Your task to perform on an android device: Go to network settings Image 0: 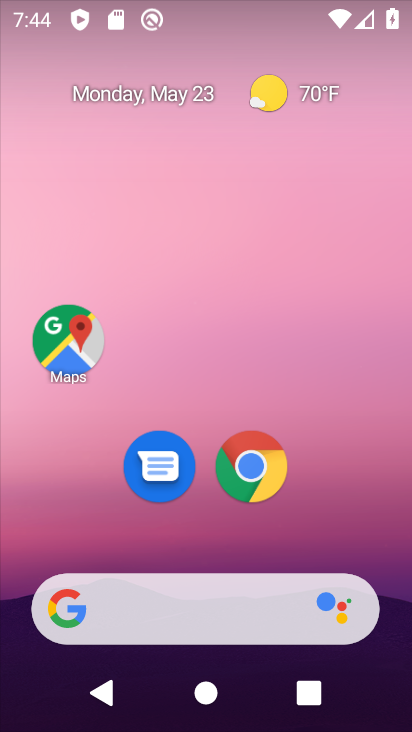
Step 0: drag from (250, 653) to (264, 118)
Your task to perform on an android device: Go to network settings Image 1: 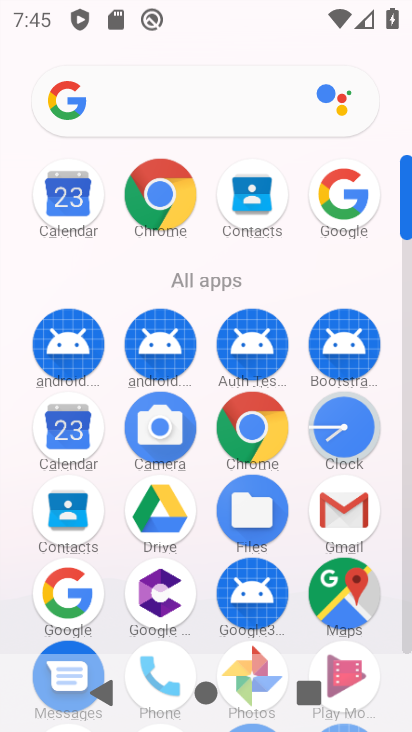
Step 1: drag from (267, 498) to (341, 305)
Your task to perform on an android device: Go to network settings Image 2: 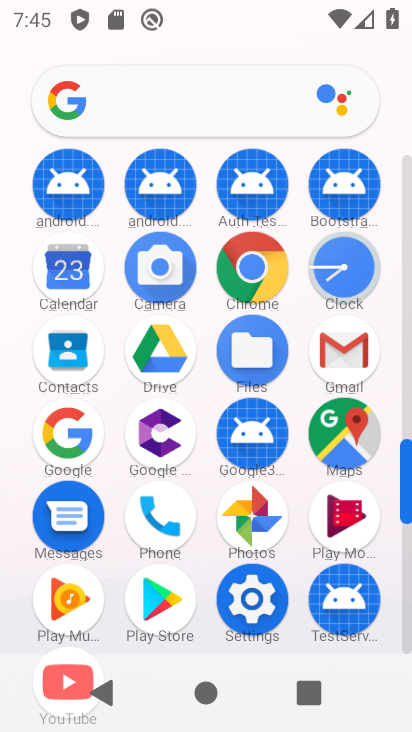
Step 2: click (251, 611)
Your task to perform on an android device: Go to network settings Image 3: 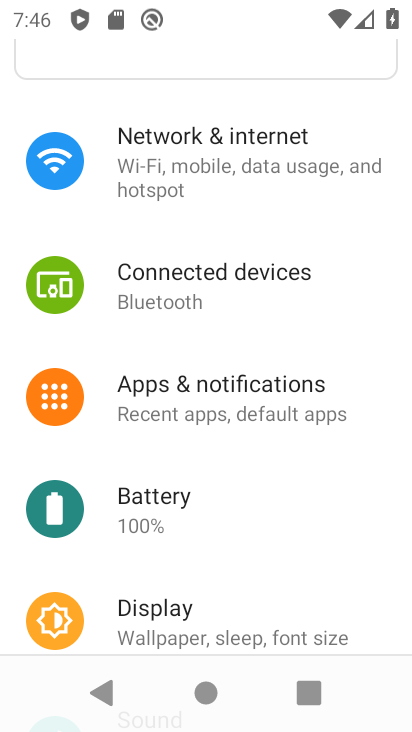
Step 3: click (255, 192)
Your task to perform on an android device: Go to network settings Image 4: 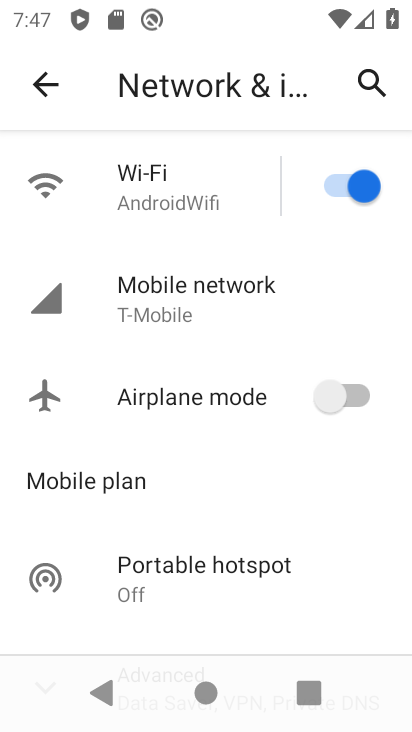
Step 4: click (255, 298)
Your task to perform on an android device: Go to network settings Image 5: 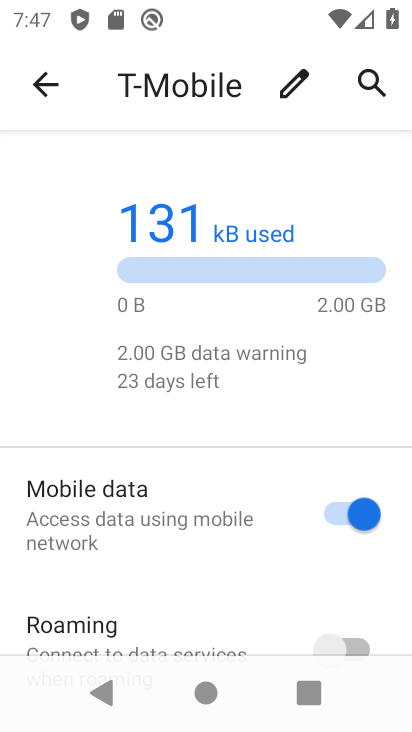
Step 5: task complete